Your task to perform on an android device: Go to Yahoo.com Image 0: 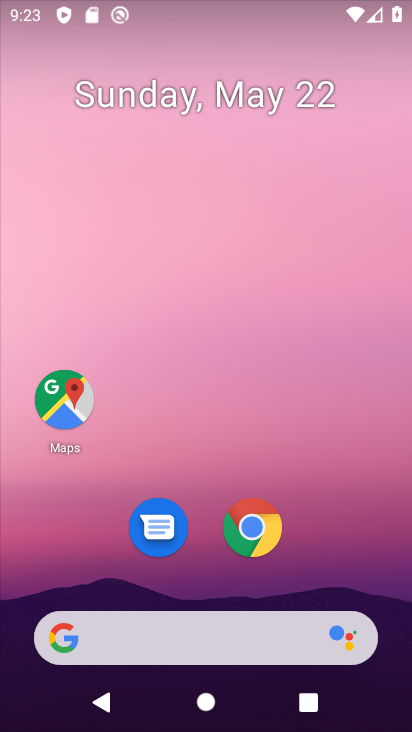
Step 0: drag from (338, 572) to (316, 81)
Your task to perform on an android device: Go to Yahoo.com Image 1: 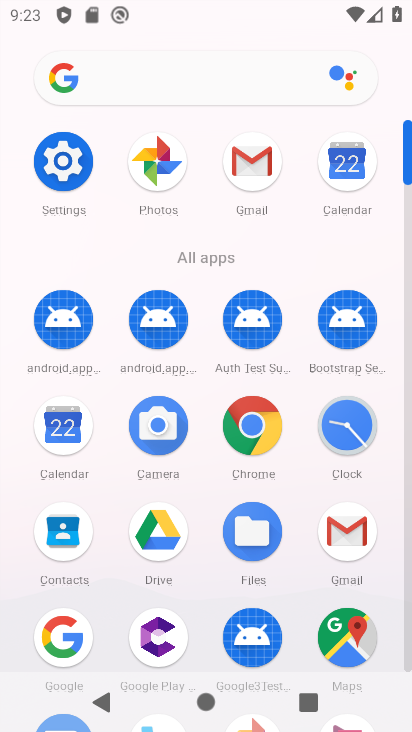
Step 1: click (207, 72)
Your task to perform on an android device: Go to Yahoo.com Image 2: 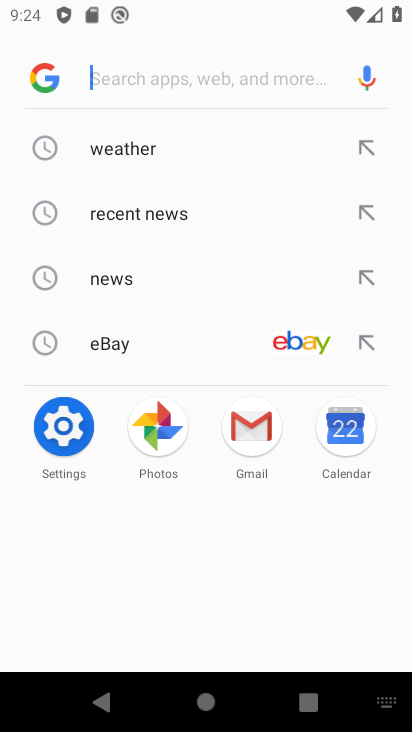
Step 2: type "yahoo.com"
Your task to perform on an android device: Go to Yahoo.com Image 3: 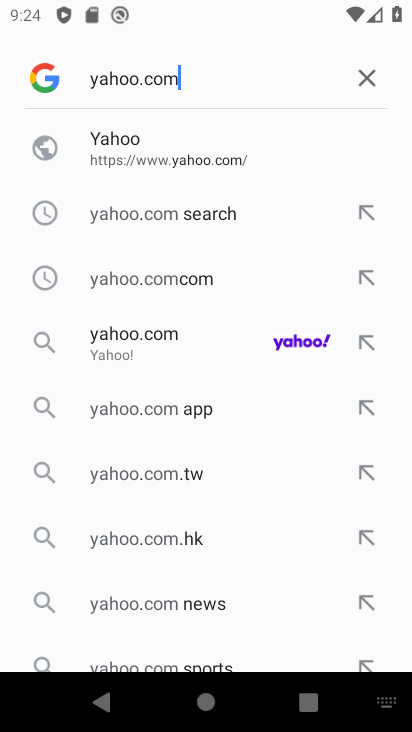
Step 3: click (179, 146)
Your task to perform on an android device: Go to Yahoo.com Image 4: 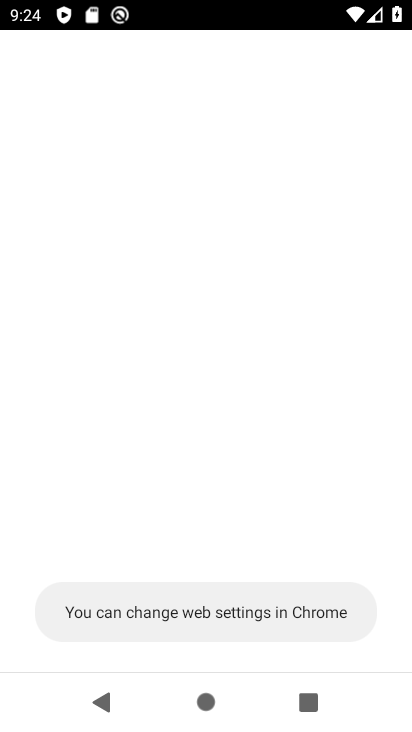
Step 4: task complete